Your task to perform on an android device: Go to network settings Image 0: 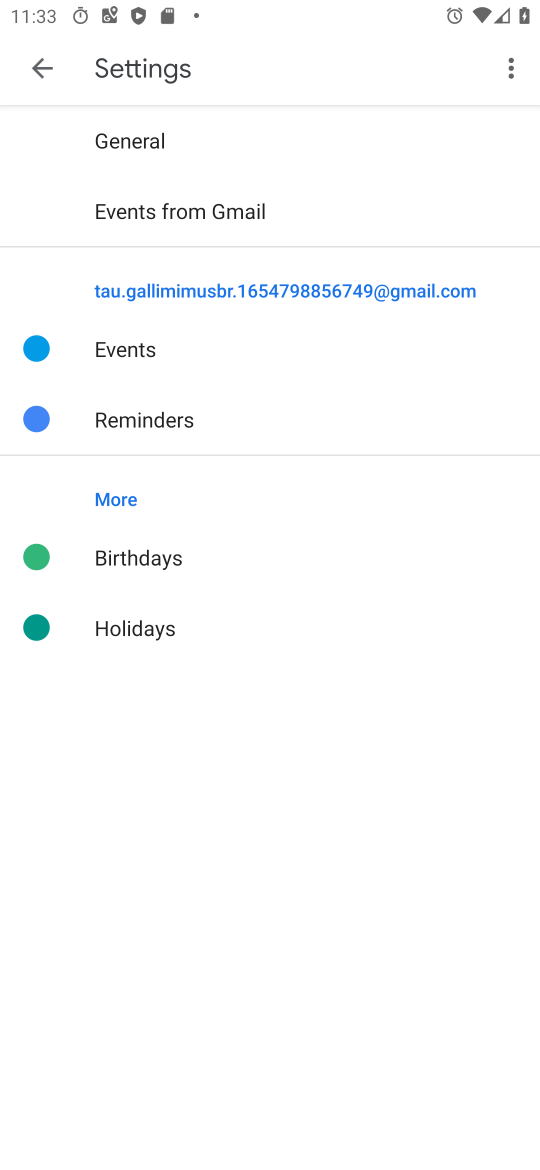
Step 0: press home button
Your task to perform on an android device: Go to network settings Image 1: 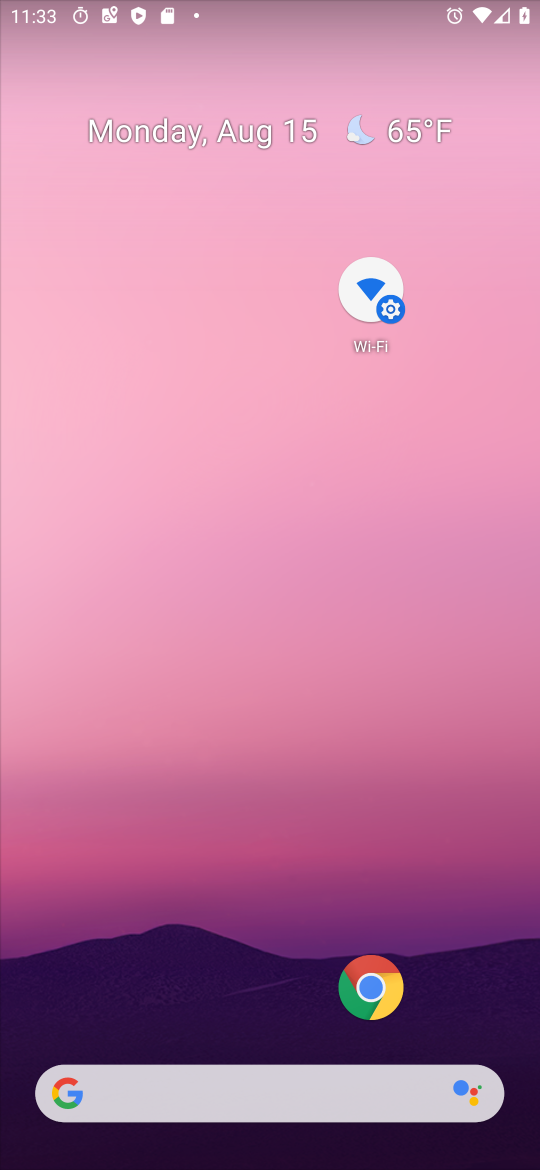
Step 1: drag from (309, 1055) to (242, 283)
Your task to perform on an android device: Go to network settings Image 2: 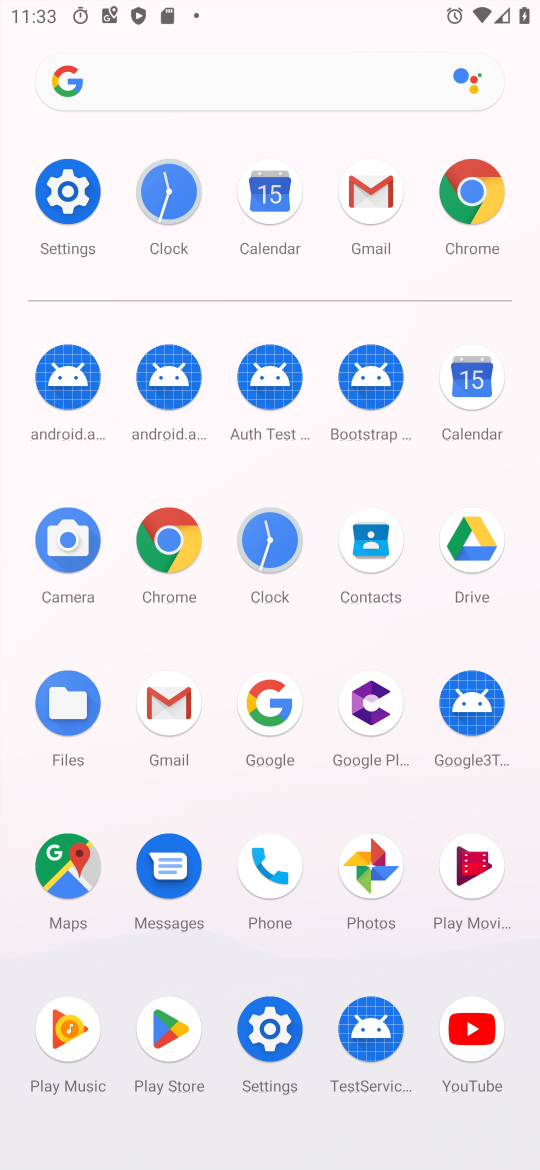
Step 2: click (261, 1051)
Your task to perform on an android device: Go to network settings Image 3: 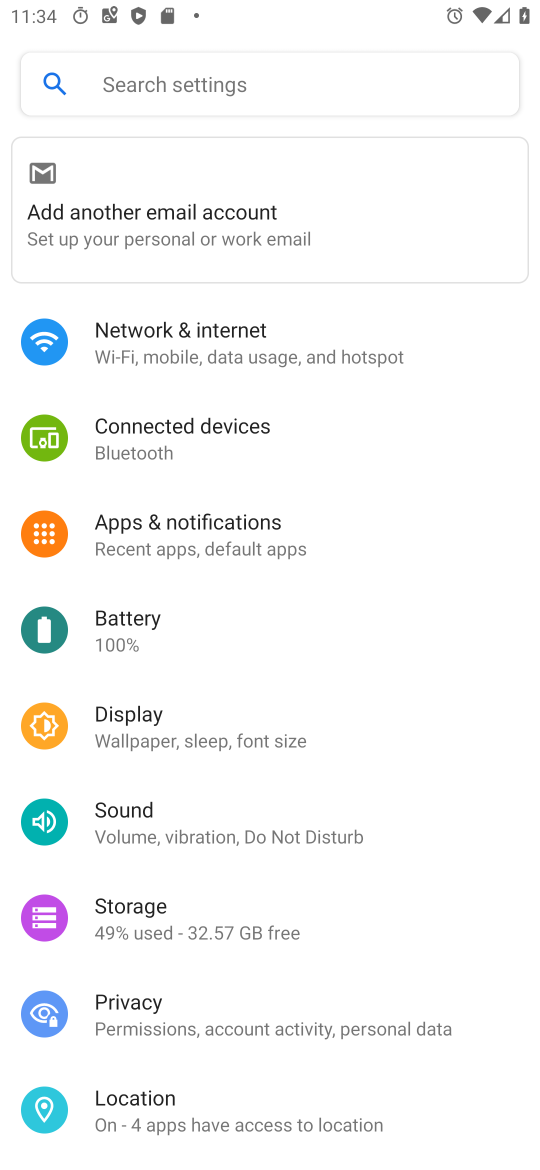
Step 3: click (180, 337)
Your task to perform on an android device: Go to network settings Image 4: 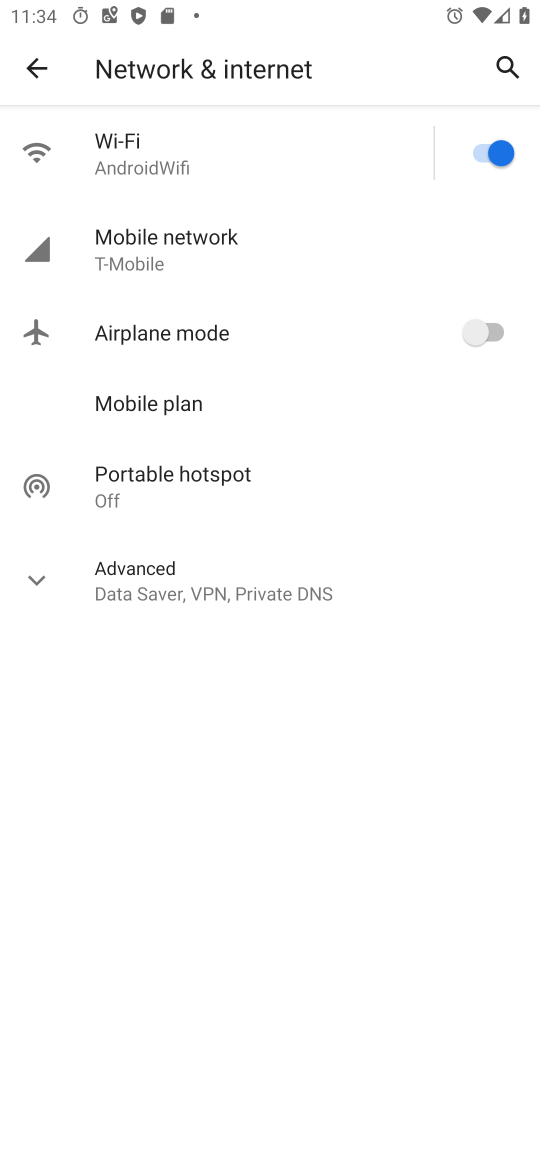
Step 4: click (190, 222)
Your task to perform on an android device: Go to network settings Image 5: 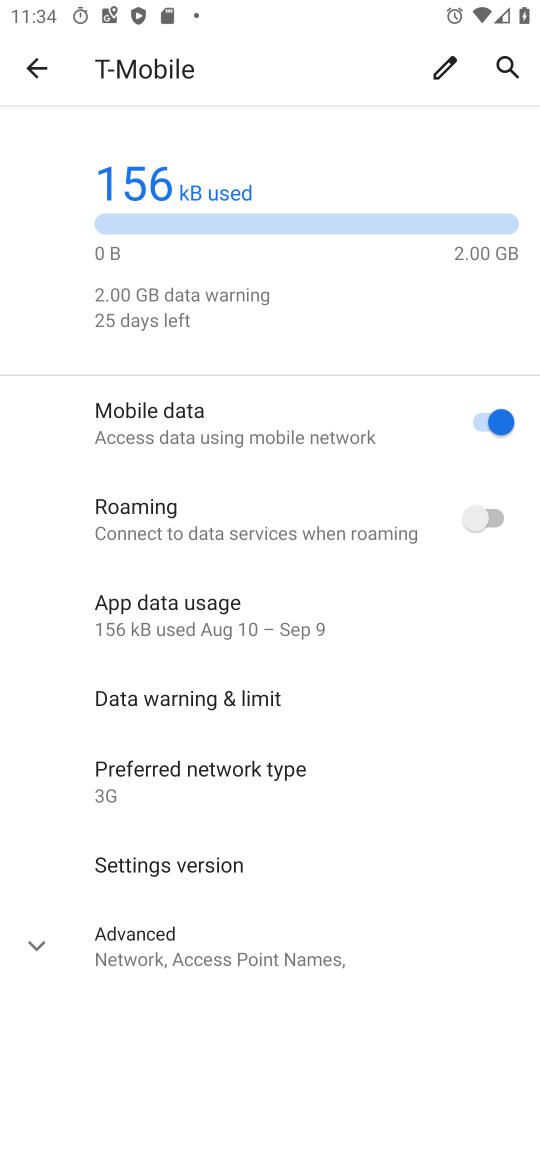
Step 5: click (227, 950)
Your task to perform on an android device: Go to network settings Image 6: 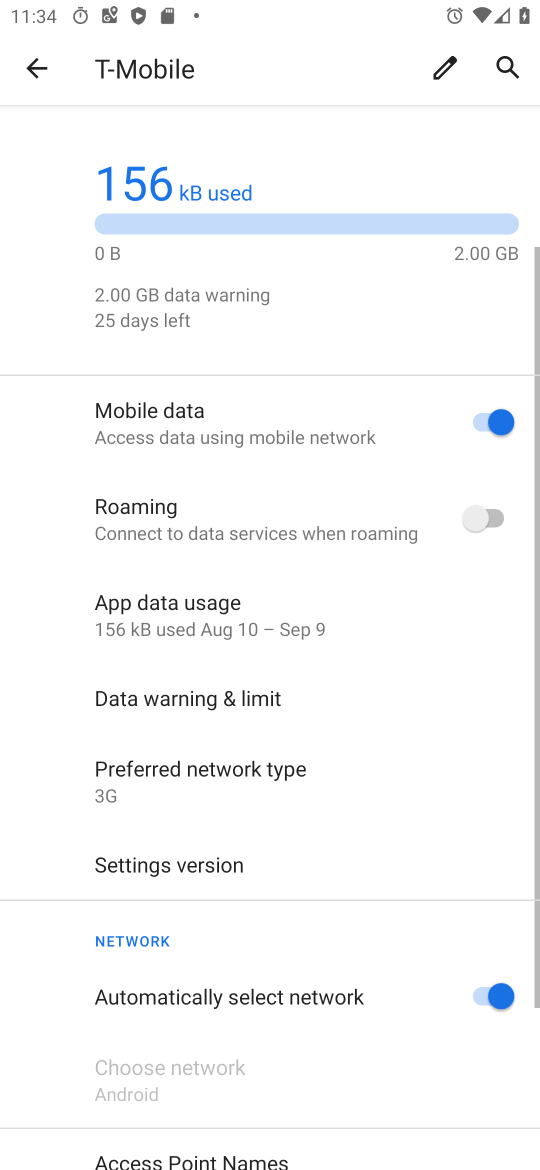
Step 6: task complete